Your task to perform on an android device: Search for Italian restaurants on Maps Image 0: 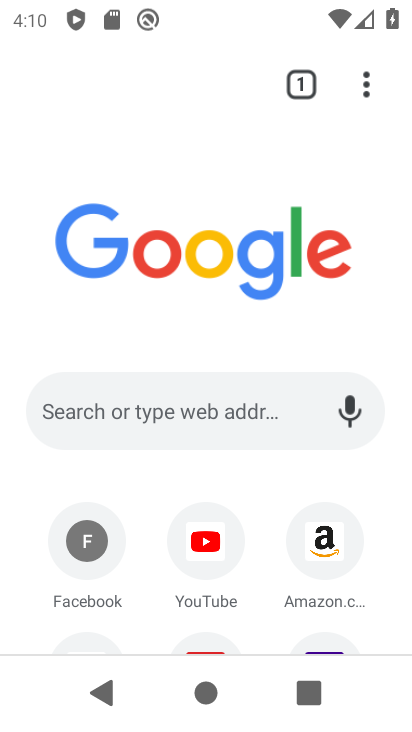
Step 0: press home button
Your task to perform on an android device: Search for Italian restaurants on Maps Image 1: 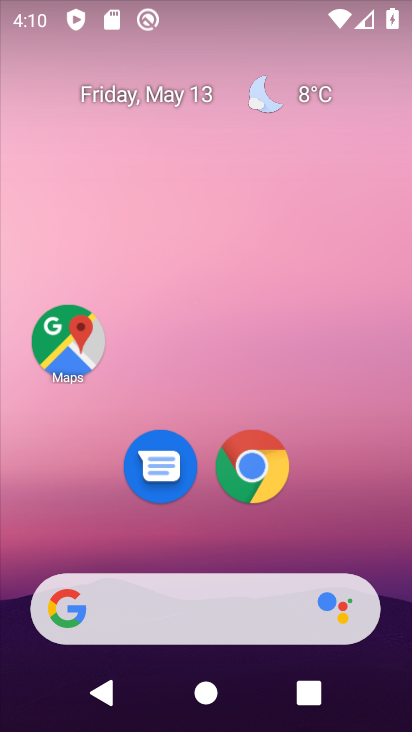
Step 1: click (67, 340)
Your task to perform on an android device: Search for Italian restaurants on Maps Image 2: 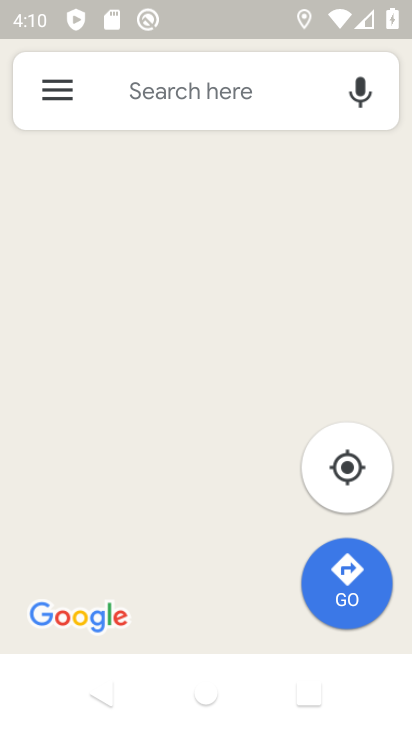
Step 2: click (167, 96)
Your task to perform on an android device: Search for Italian restaurants on Maps Image 3: 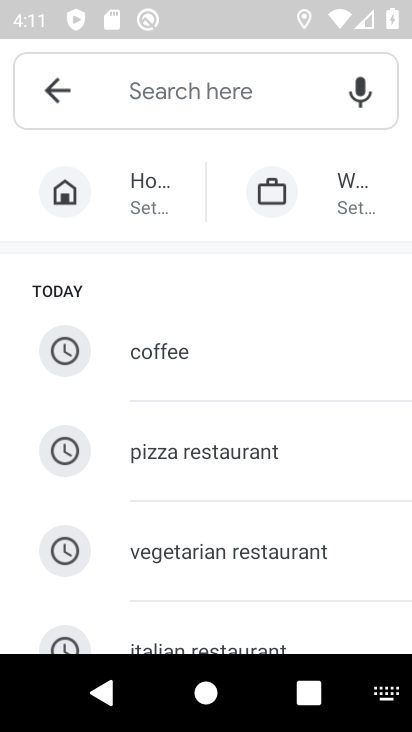
Step 3: type "italian restaurants"
Your task to perform on an android device: Search for Italian restaurants on Maps Image 4: 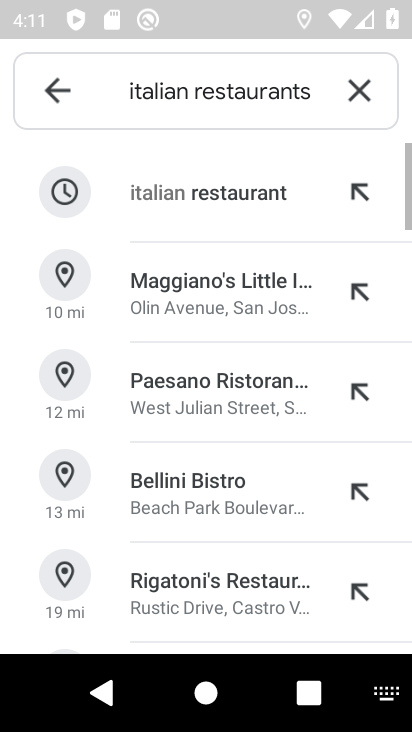
Step 4: click (156, 184)
Your task to perform on an android device: Search for Italian restaurants on Maps Image 5: 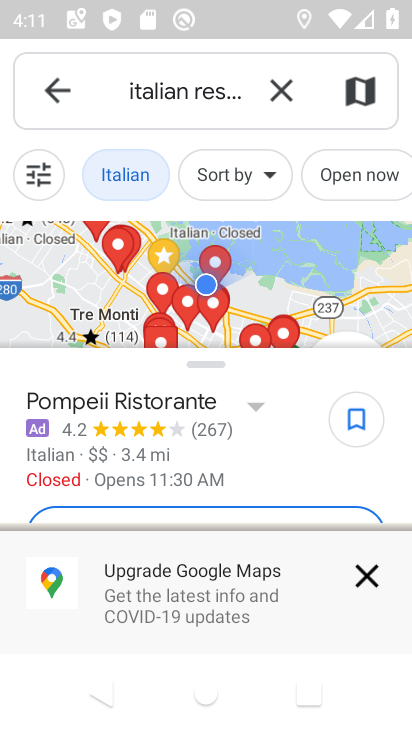
Step 5: task complete